Your task to perform on an android device: uninstall "Google Sheets" Image 0: 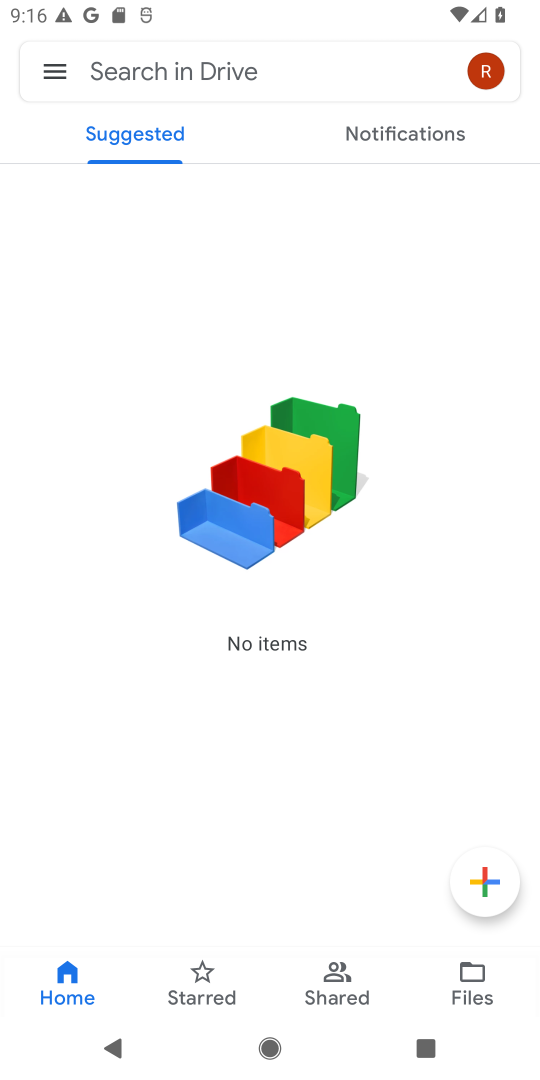
Step 0: press back button
Your task to perform on an android device: uninstall "Google Sheets" Image 1: 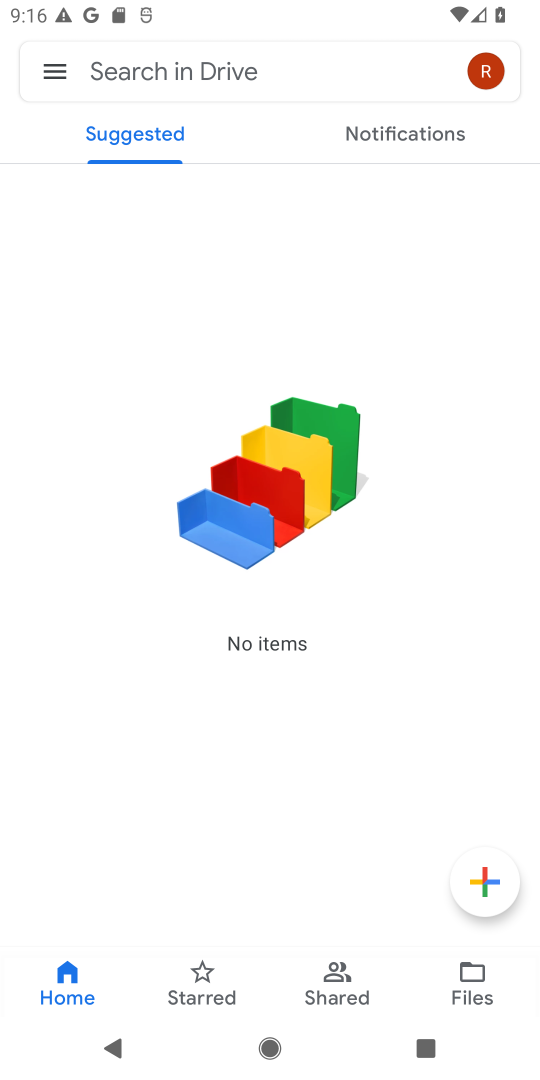
Step 1: press back button
Your task to perform on an android device: uninstall "Google Sheets" Image 2: 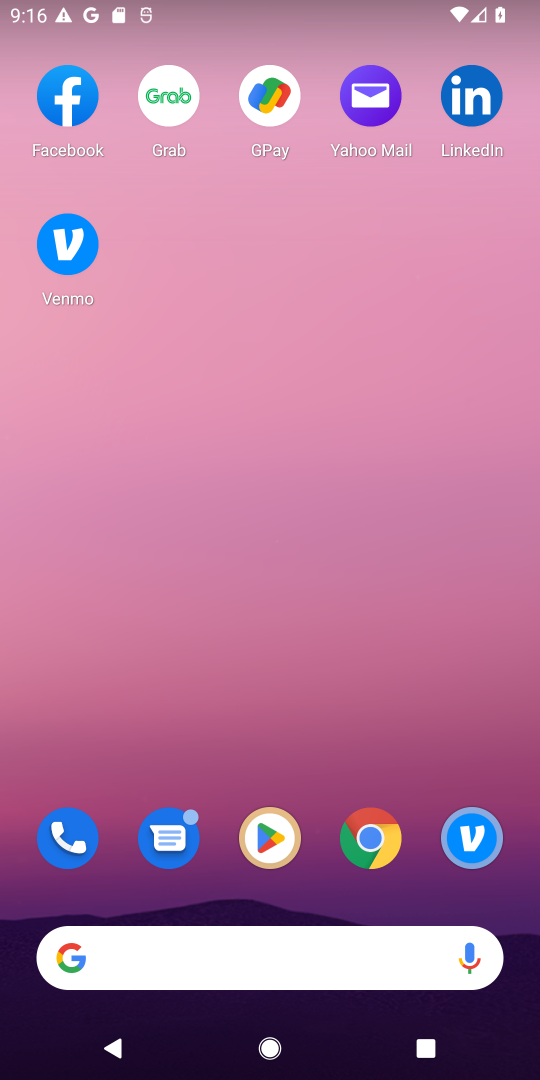
Step 2: click (249, 830)
Your task to perform on an android device: uninstall "Google Sheets" Image 3: 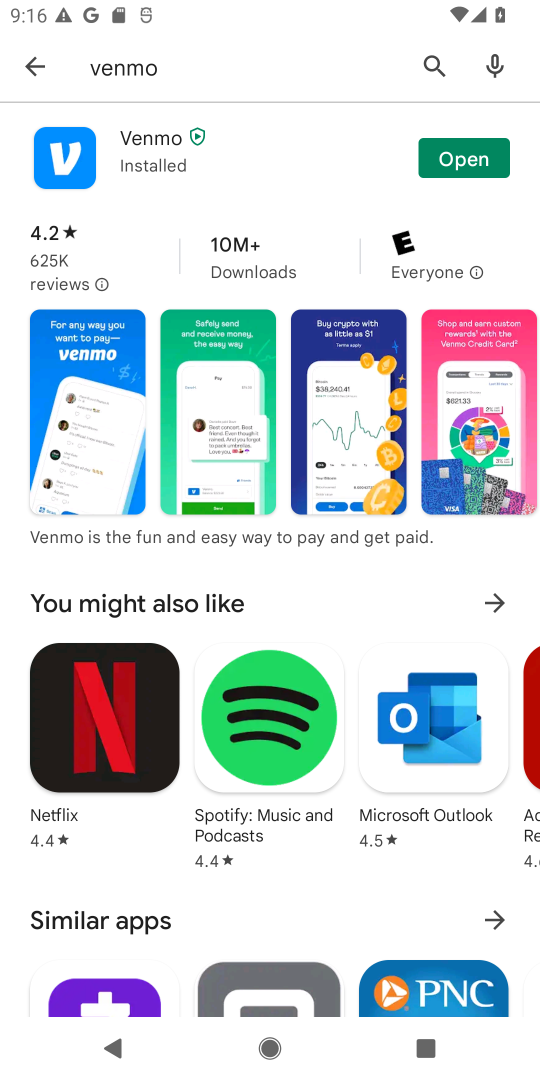
Step 3: click (432, 62)
Your task to perform on an android device: uninstall "Google Sheets" Image 4: 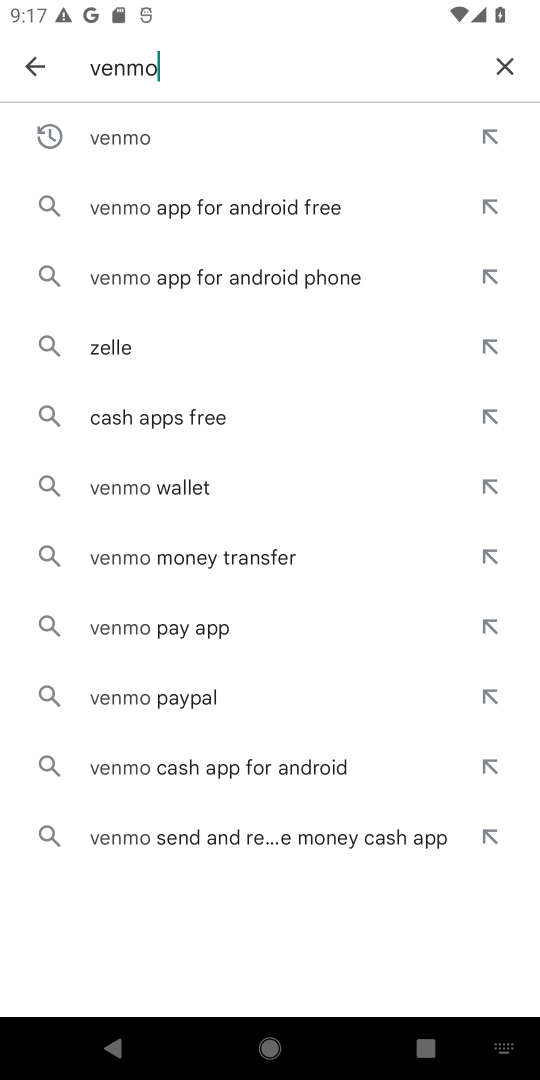
Step 4: click (502, 75)
Your task to perform on an android device: uninstall "Google Sheets" Image 5: 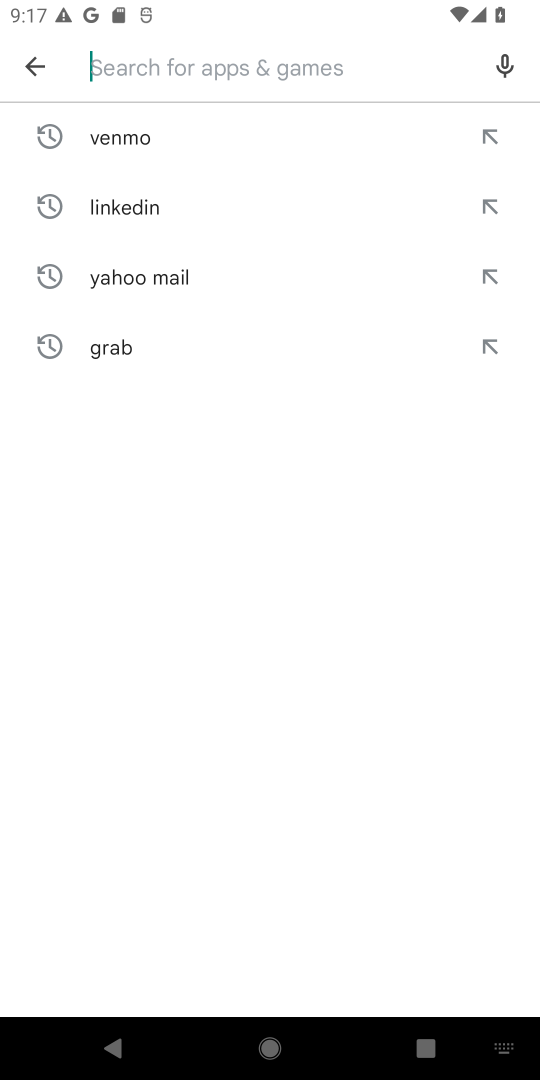
Step 5: type "Google Sheets"
Your task to perform on an android device: uninstall "Google Sheets" Image 6: 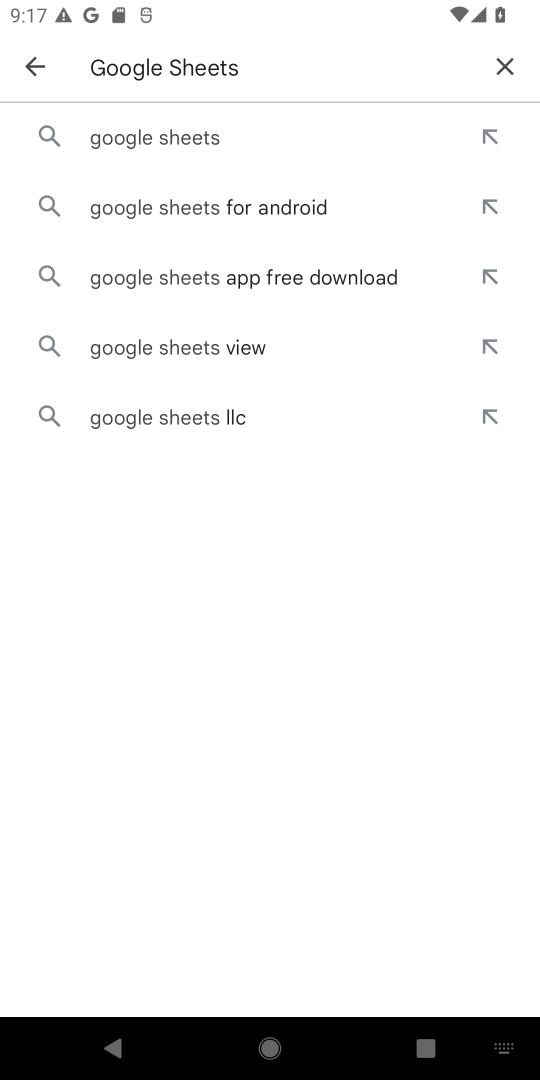
Step 6: click (258, 144)
Your task to perform on an android device: uninstall "Google Sheets" Image 7: 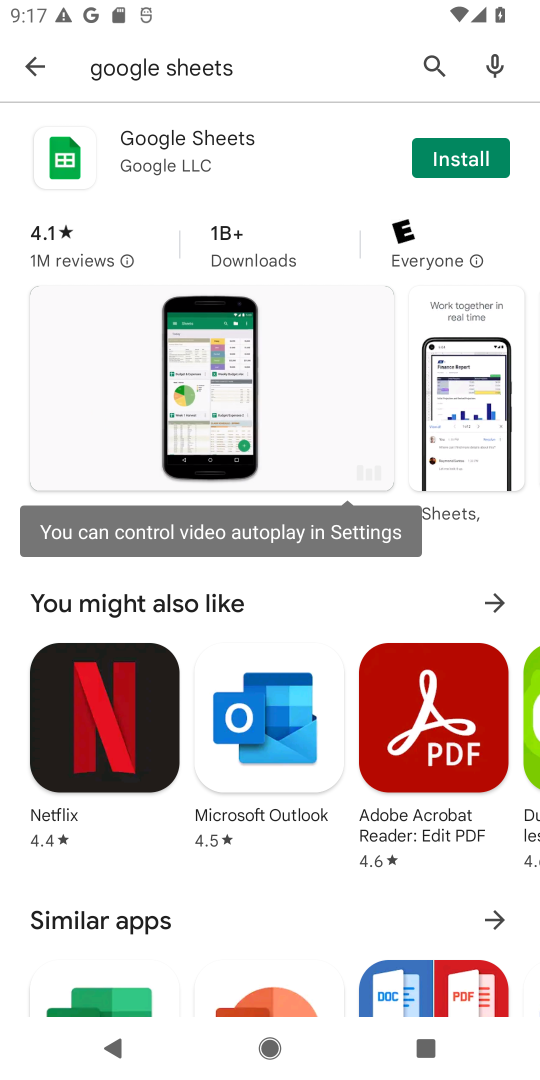
Step 7: click (286, 146)
Your task to perform on an android device: uninstall "Google Sheets" Image 8: 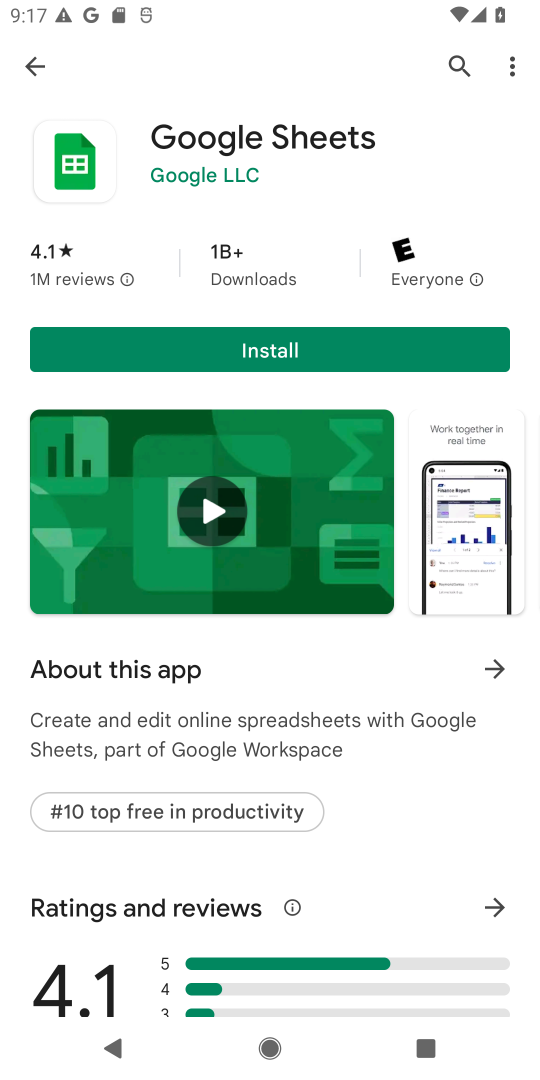
Step 8: task complete